Your task to perform on an android device: manage bookmarks in the chrome app Image 0: 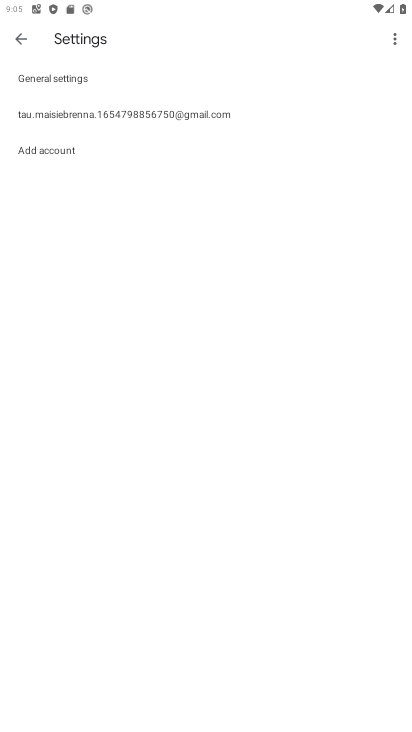
Step 0: click (111, 113)
Your task to perform on an android device: manage bookmarks in the chrome app Image 1: 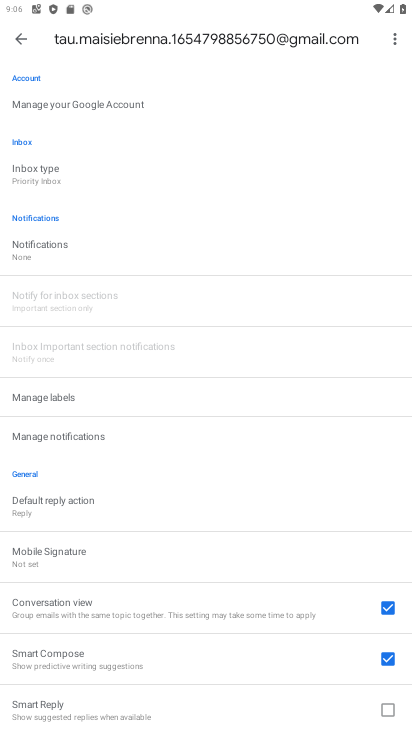
Step 1: click (39, 174)
Your task to perform on an android device: manage bookmarks in the chrome app Image 2: 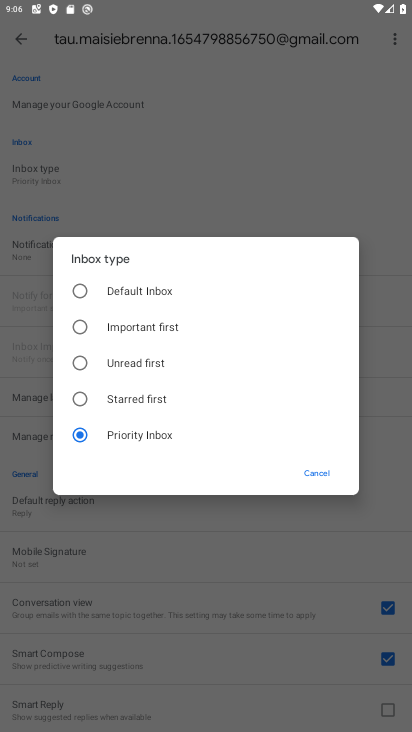
Step 2: click (84, 292)
Your task to perform on an android device: manage bookmarks in the chrome app Image 3: 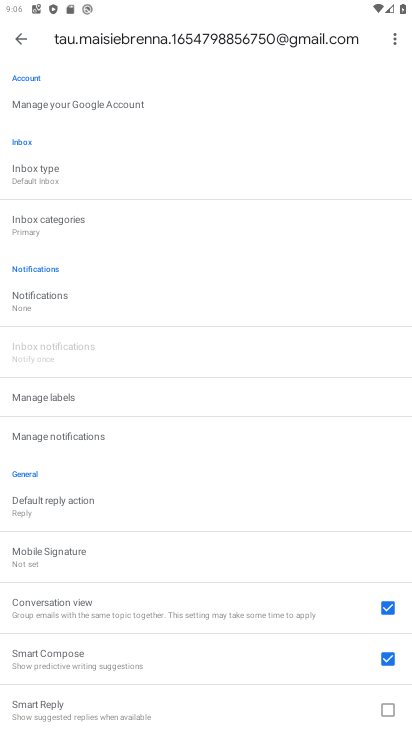
Step 3: task complete